Your task to perform on an android device: refresh tabs in the chrome app Image 0: 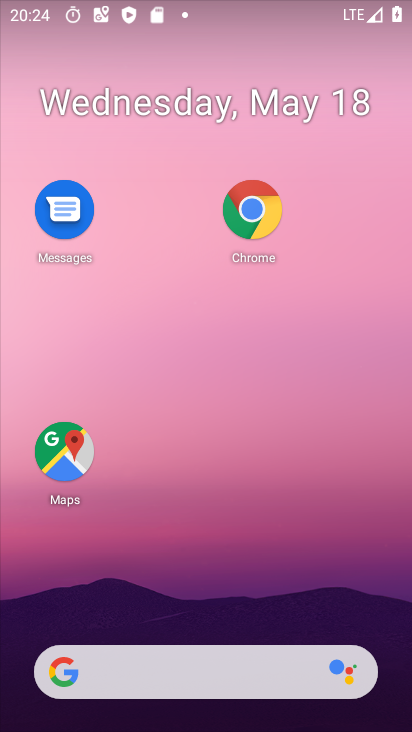
Step 0: click (255, 214)
Your task to perform on an android device: refresh tabs in the chrome app Image 1: 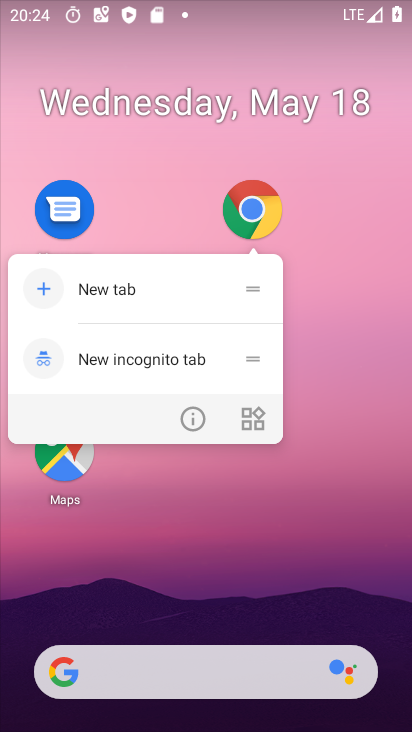
Step 1: click (111, 283)
Your task to perform on an android device: refresh tabs in the chrome app Image 2: 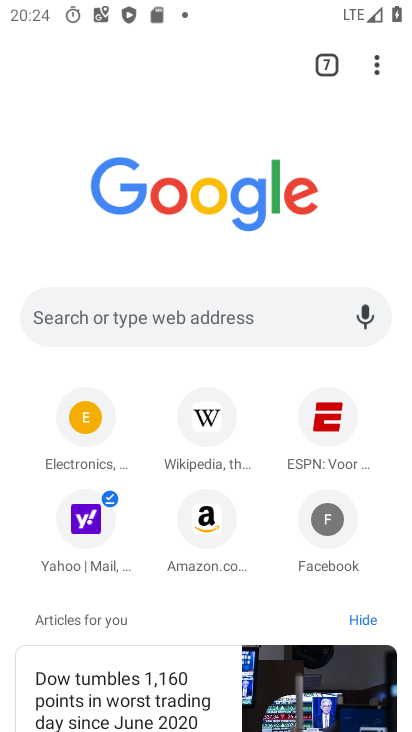
Step 2: click (382, 55)
Your task to perform on an android device: refresh tabs in the chrome app Image 3: 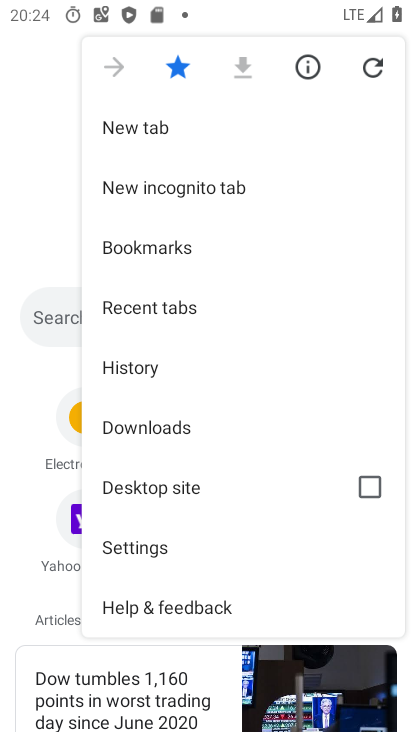
Step 3: click (366, 71)
Your task to perform on an android device: refresh tabs in the chrome app Image 4: 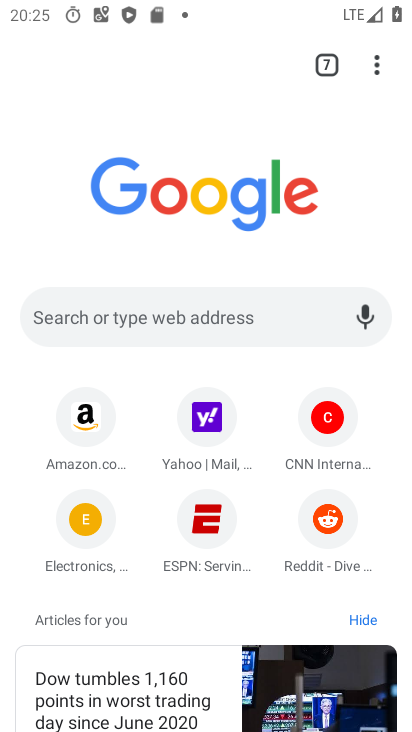
Step 4: task complete